Your task to perform on an android device: Play the last video I watched on Youtube Image 0: 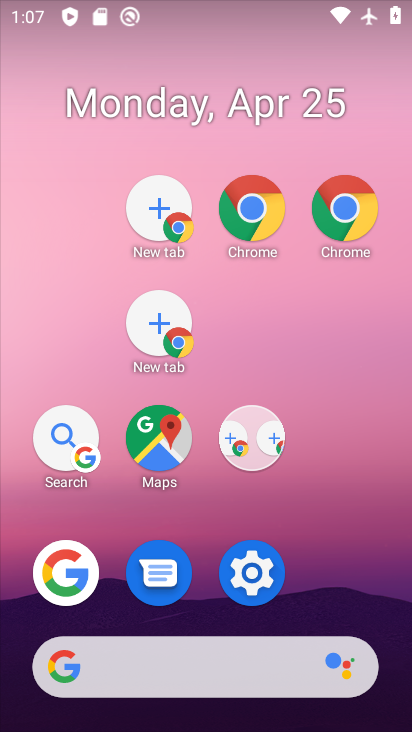
Step 0: drag from (234, 312) to (268, 8)
Your task to perform on an android device: Play the last video I watched on Youtube Image 1: 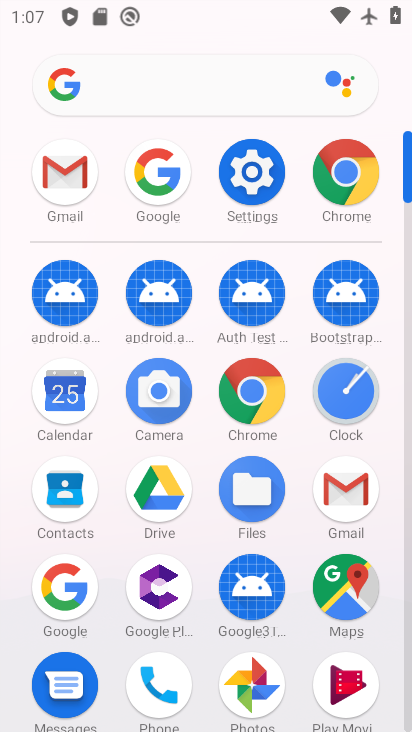
Step 1: drag from (213, 644) to (104, 222)
Your task to perform on an android device: Play the last video I watched on Youtube Image 2: 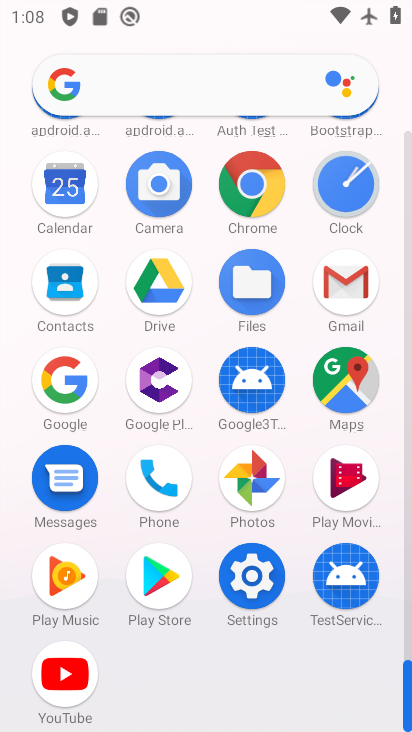
Step 2: click (61, 685)
Your task to perform on an android device: Play the last video I watched on Youtube Image 3: 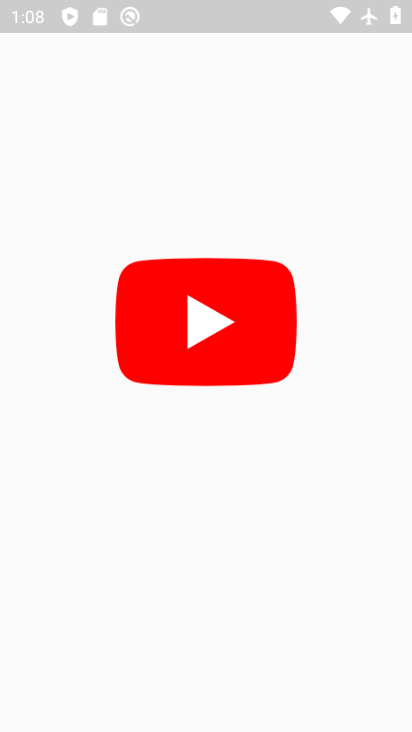
Step 3: click (59, 683)
Your task to perform on an android device: Play the last video I watched on Youtube Image 4: 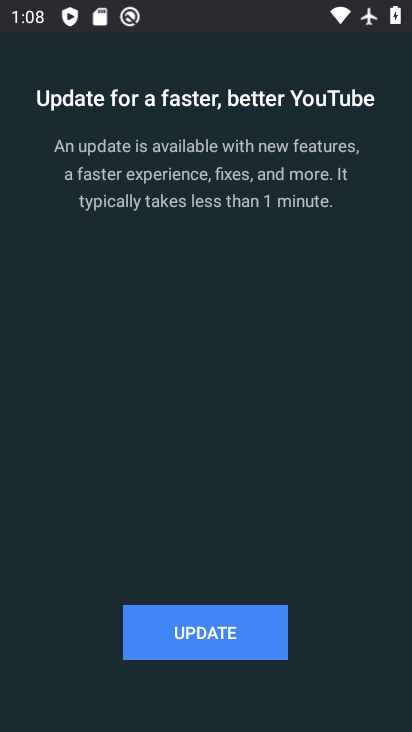
Step 4: click (218, 619)
Your task to perform on an android device: Play the last video I watched on Youtube Image 5: 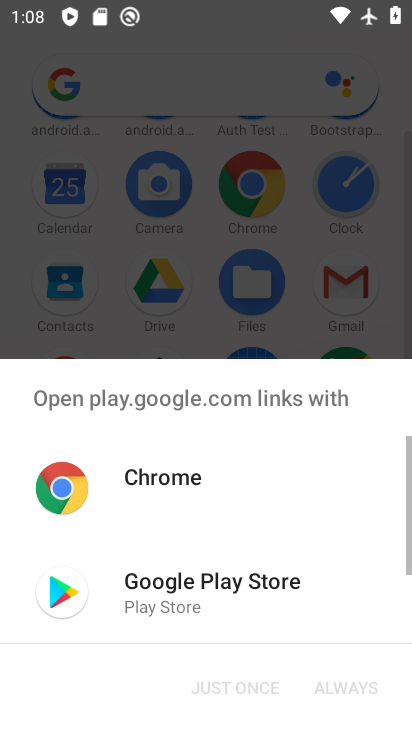
Step 5: click (198, 595)
Your task to perform on an android device: Play the last video I watched on Youtube Image 6: 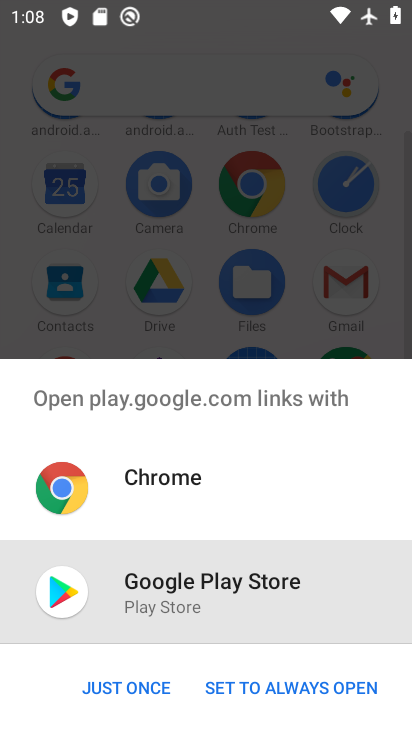
Step 6: click (141, 686)
Your task to perform on an android device: Play the last video I watched on Youtube Image 7: 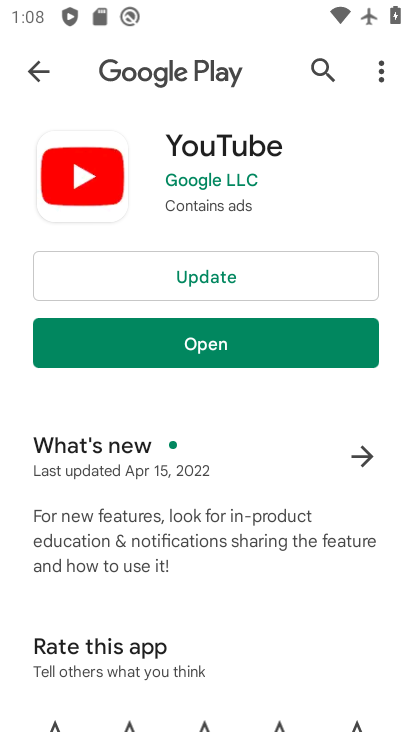
Step 7: click (231, 275)
Your task to perform on an android device: Play the last video I watched on Youtube Image 8: 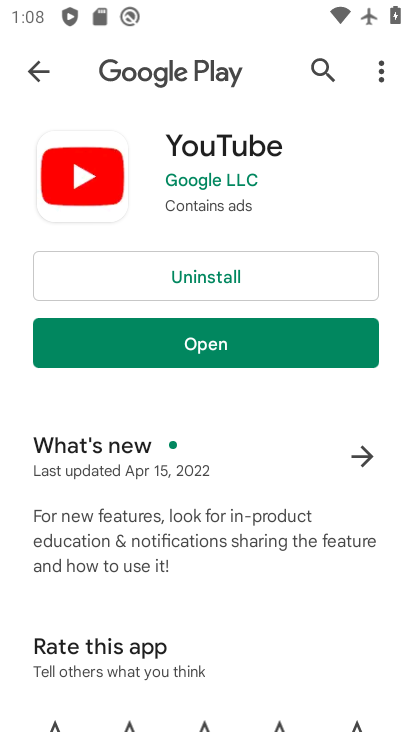
Step 8: click (234, 344)
Your task to perform on an android device: Play the last video I watched on Youtube Image 9: 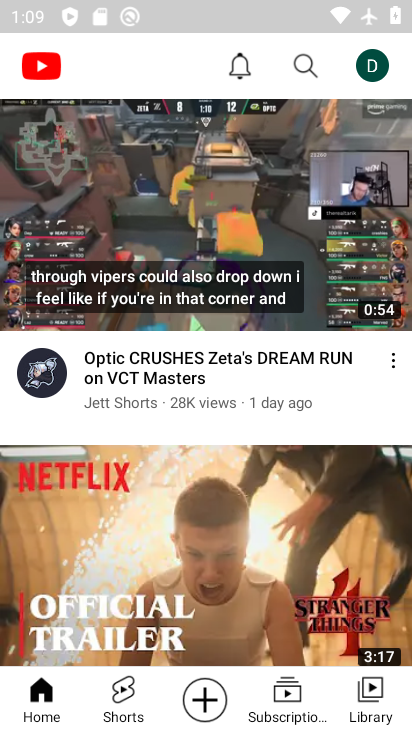
Step 9: task complete